Your task to perform on an android device: move a message to another label in the gmail app Image 0: 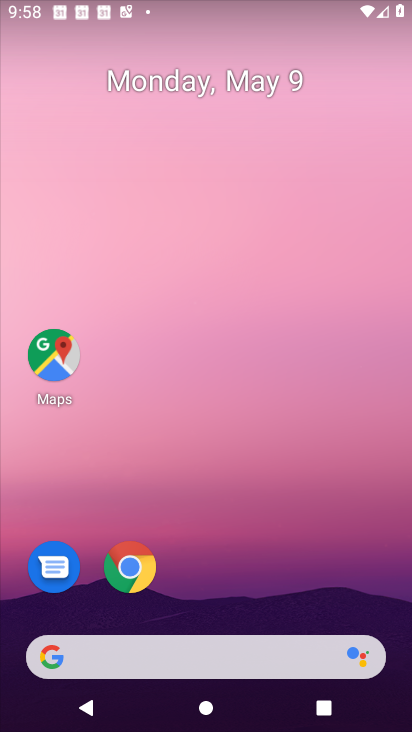
Step 0: drag from (178, 658) to (4, 136)
Your task to perform on an android device: move a message to another label in the gmail app Image 1: 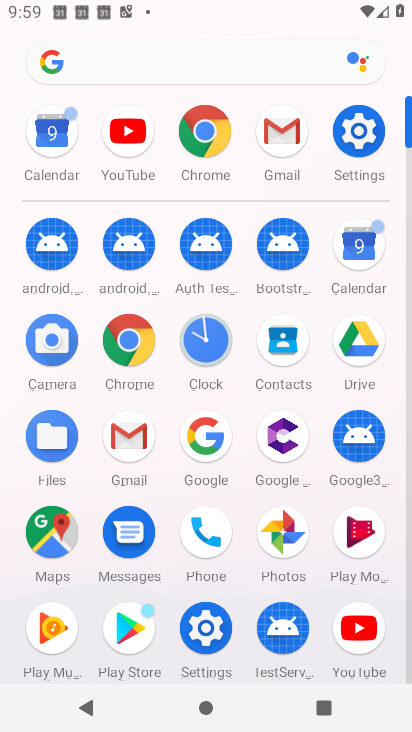
Step 1: click (124, 438)
Your task to perform on an android device: move a message to another label in the gmail app Image 2: 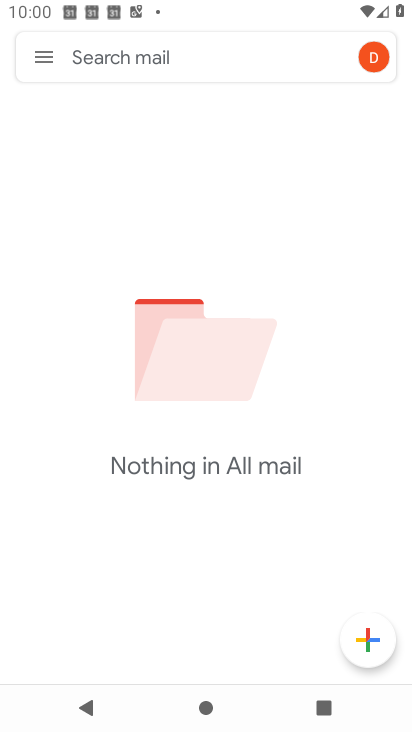
Step 2: click (49, 48)
Your task to perform on an android device: move a message to another label in the gmail app Image 3: 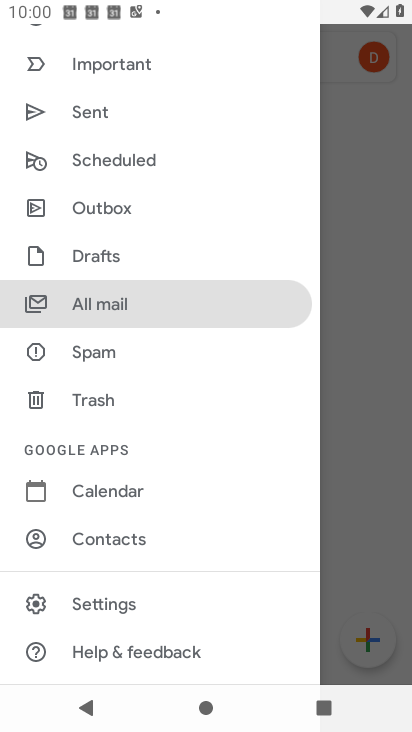
Step 3: task complete